Your task to perform on an android device: Open notification settings Image 0: 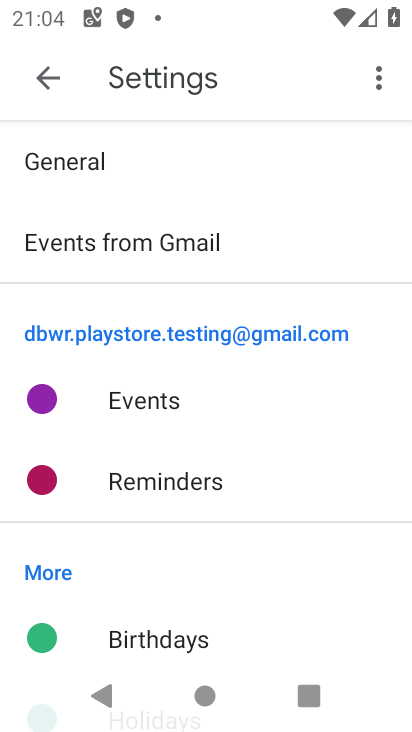
Step 0: press home button
Your task to perform on an android device: Open notification settings Image 1: 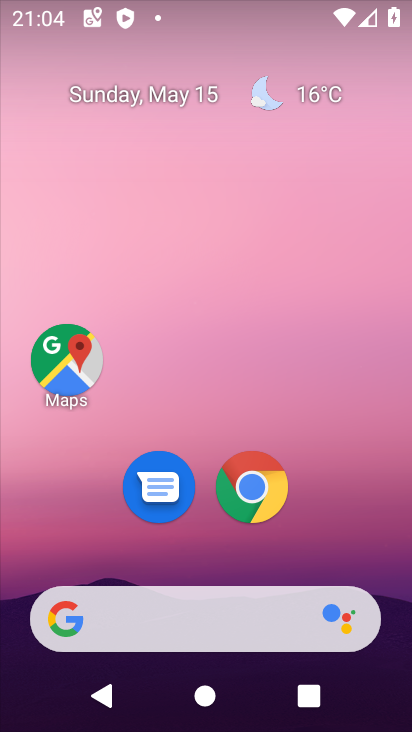
Step 1: click (378, 298)
Your task to perform on an android device: Open notification settings Image 2: 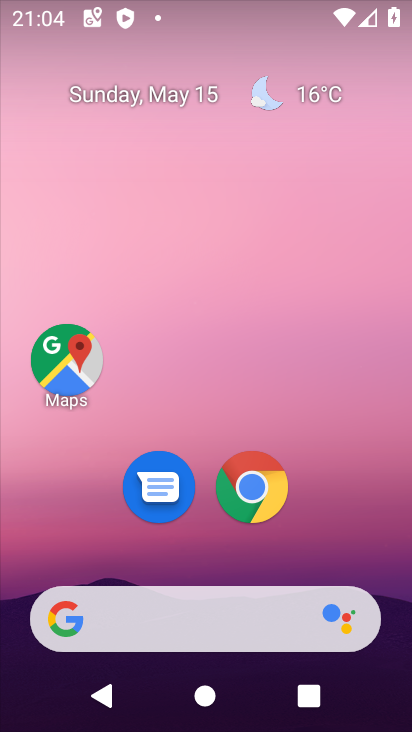
Step 2: drag from (396, 609) to (381, 294)
Your task to perform on an android device: Open notification settings Image 3: 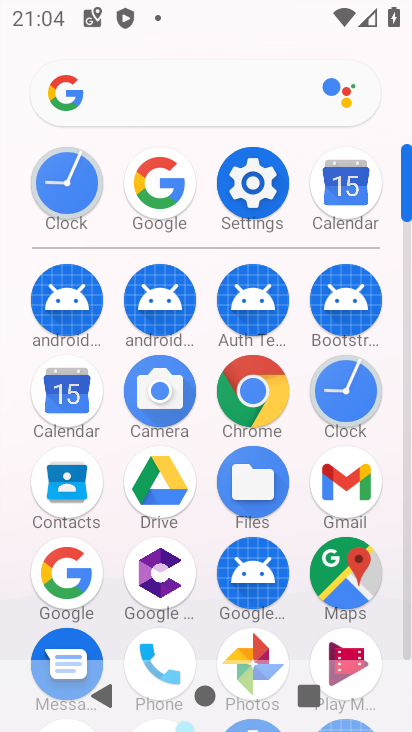
Step 3: click (240, 168)
Your task to perform on an android device: Open notification settings Image 4: 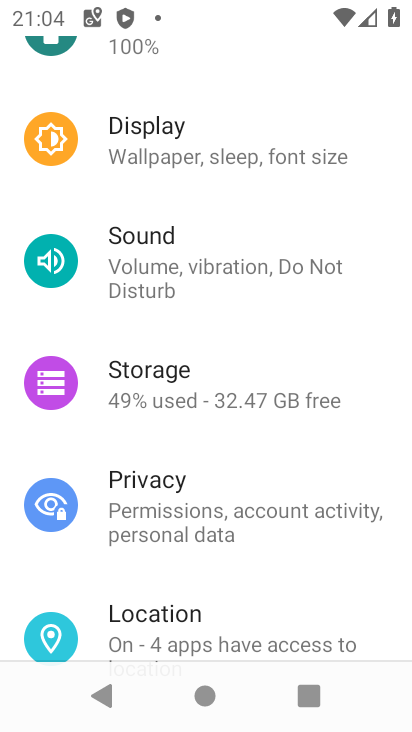
Step 4: drag from (329, 352) to (329, 386)
Your task to perform on an android device: Open notification settings Image 5: 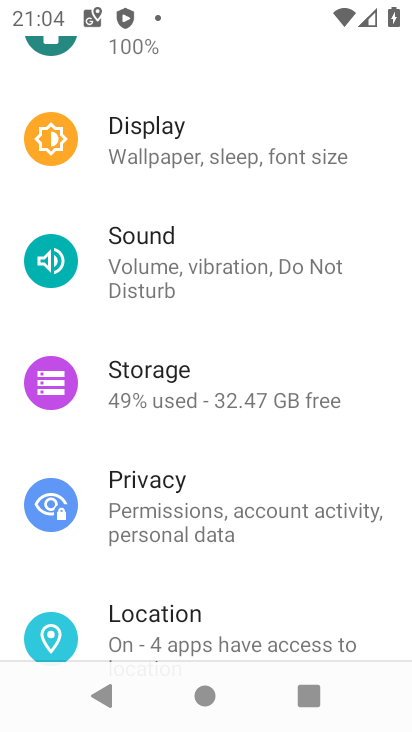
Step 5: drag from (380, 230) to (374, 583)
Your task to perform on an android device: Open notification settings Image 6: 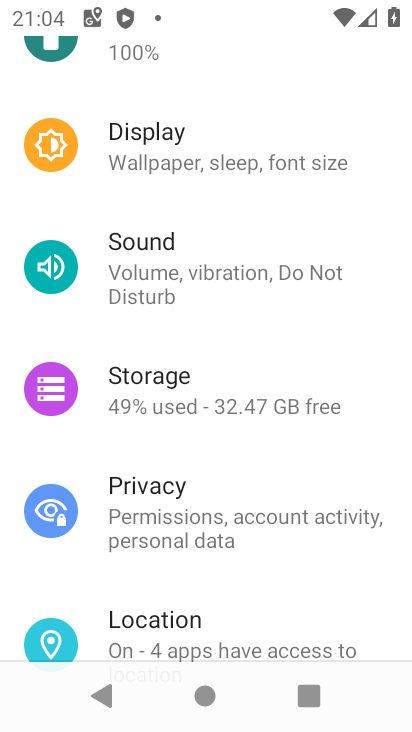
Step 6: drag from (376, 153) to (386, 391)
Your task to perform on an android device: Open notification settings Image 7: 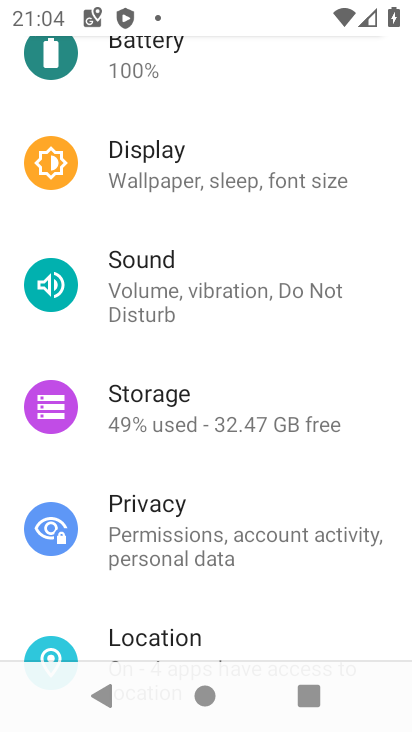
Step 7: drag from (372, 242) to (362, 435)
Your task to perform on an android device: Open notification settings Image 8: 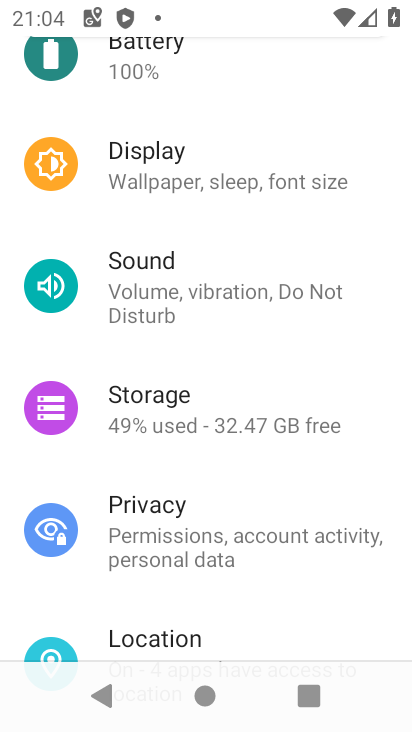
Step 8: drag from (368, 137) to (355, 386)
Your task to perform on an android device: Open notification settings Image 9: 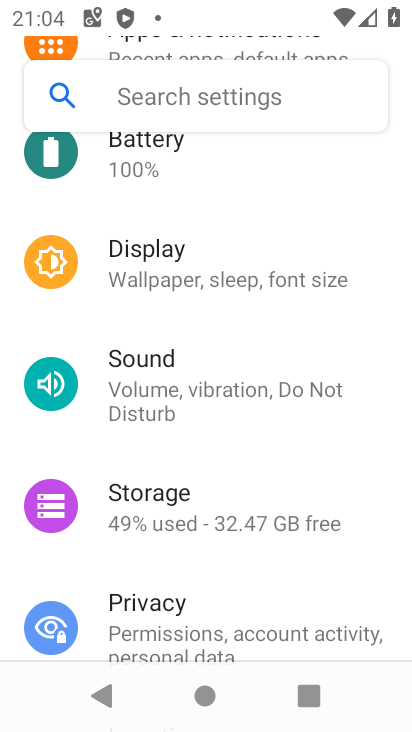
Step 9: drag from (373, 156) to (373, 514)
Your task to perform on an android device: Open notification settings Image 10: 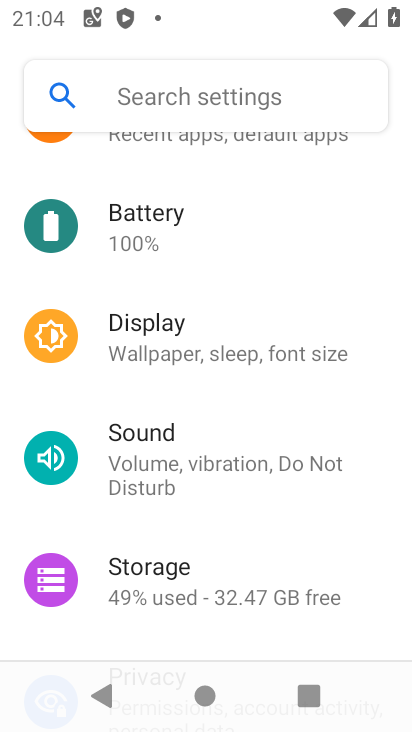
Step 10: drag from (364, 203) to (345, 534)
Your task to perform on an android device: Open notification settings Image 11: 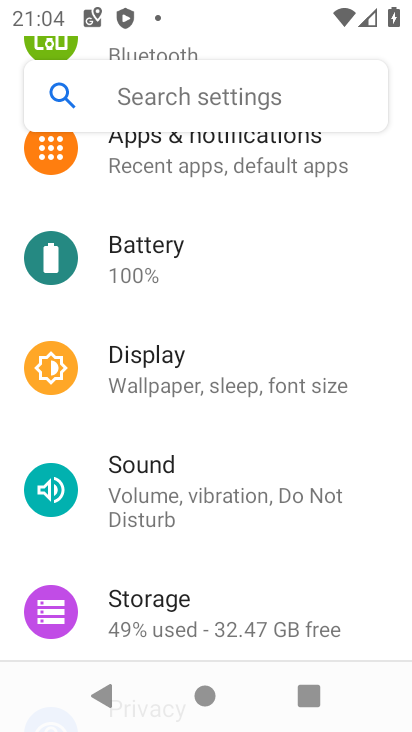
Step 11: click (205, 152)
Your task to perform on an android device: Open notification settings Image 12: 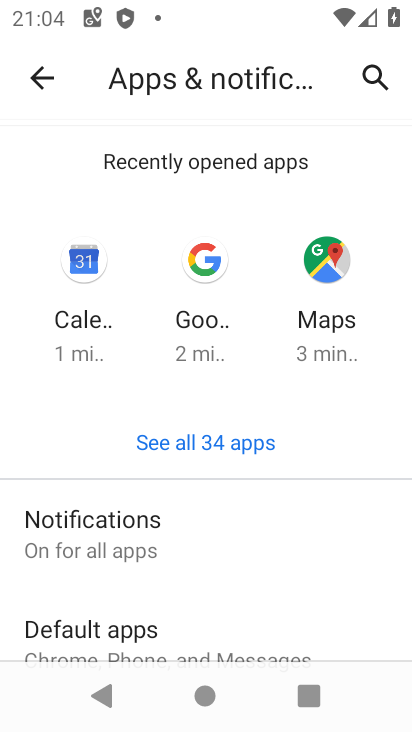
Step 12: click (74, 521)
Your task to perform on an android device: Open notification settings Image 13: 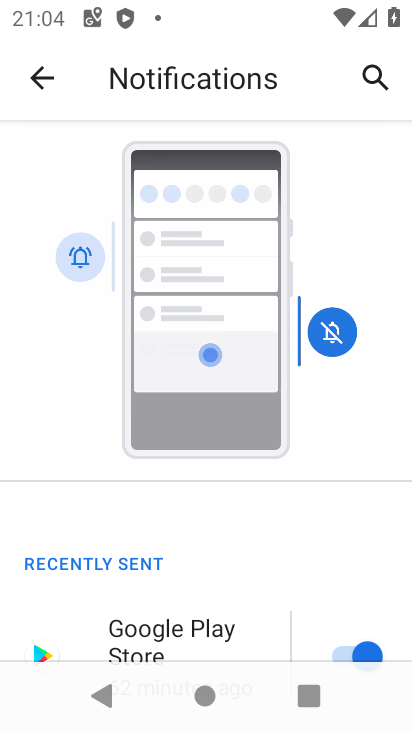
Step 13: task complete